Your task to perform on an android device: turn off improve location accuracy Image 0: 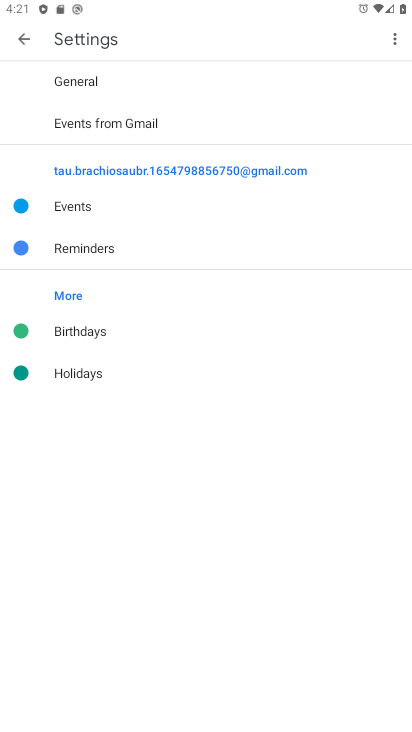
Step 0: press home button
Your task to perform on an android device: turn off improve location accuracy Image 1: 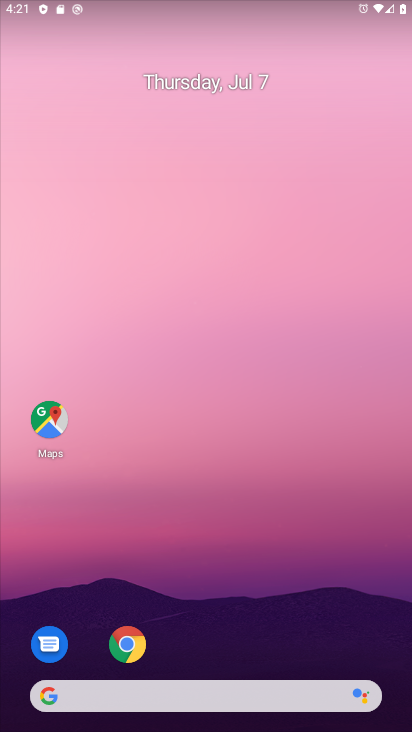
Step 1: drag from (205, 654) to (205, 195)
Your task to perform on an android device: turn off improve location accuracy Image 2: 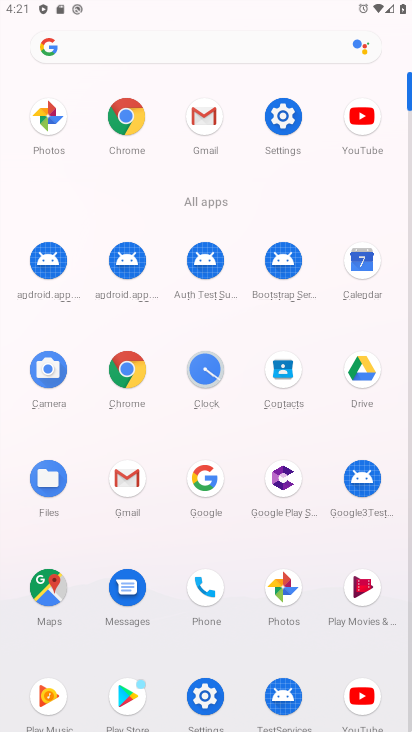
Step 2: click (281, 116)
Your task to perform on an android device: turn off improve location accuracy Image 3: 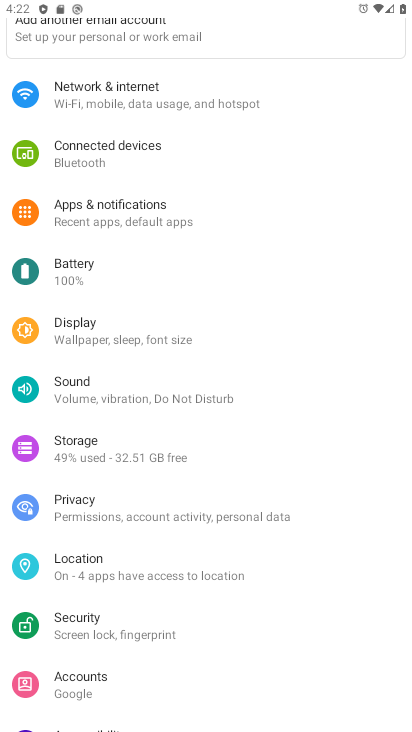
Step 3: click (97, 567)
Your task to perform on an android device: turn off improve location accuracy Image 4: 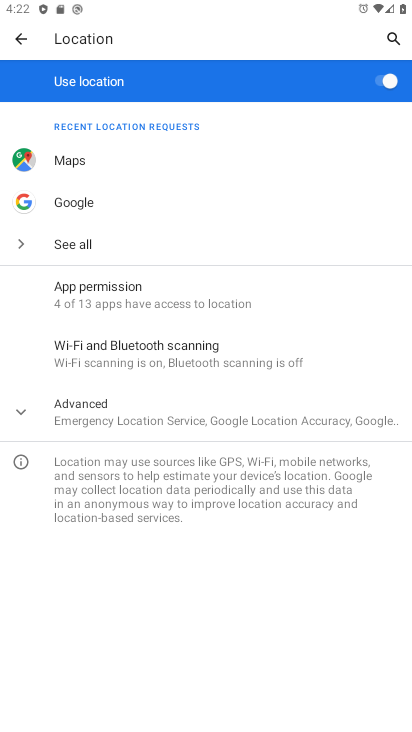
Step 4: click (196, 416)
Your task to perform on an android device: turn off improve location accuracy Image 5: 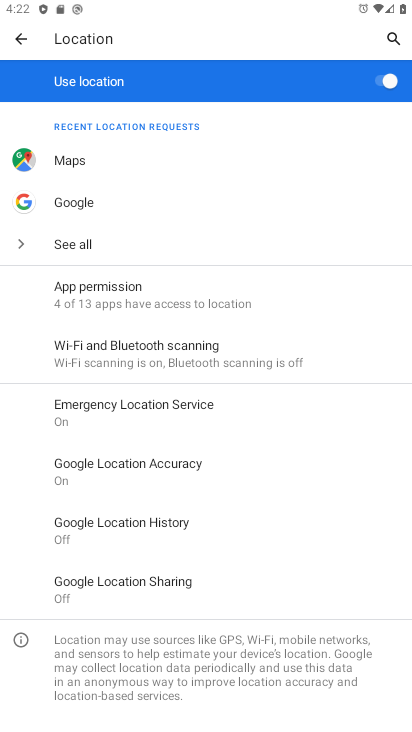
Step 5: click (164, 470)
Your task to perform on an android device: turn off improve location accuracy Image 6: 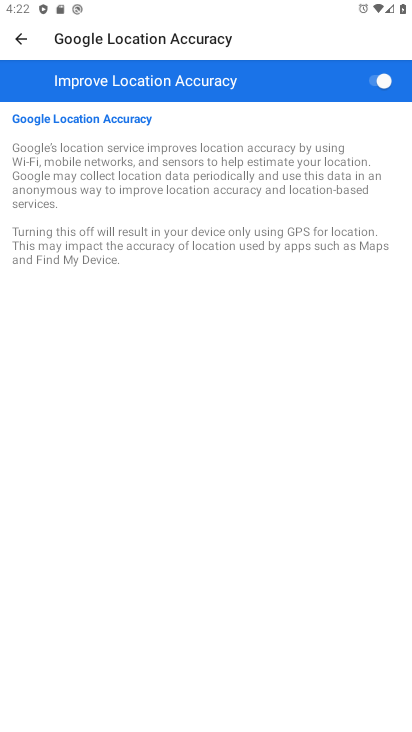
Step 6: click (382, 78)
Your task to perform on an android device: turn off improve location accuracy Image 7: 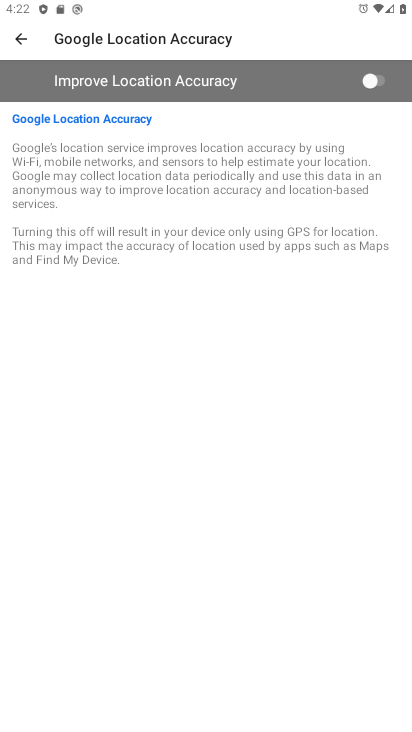
Step 7: task complete